Your task to perform on an android device: Open internet settings Image 0: 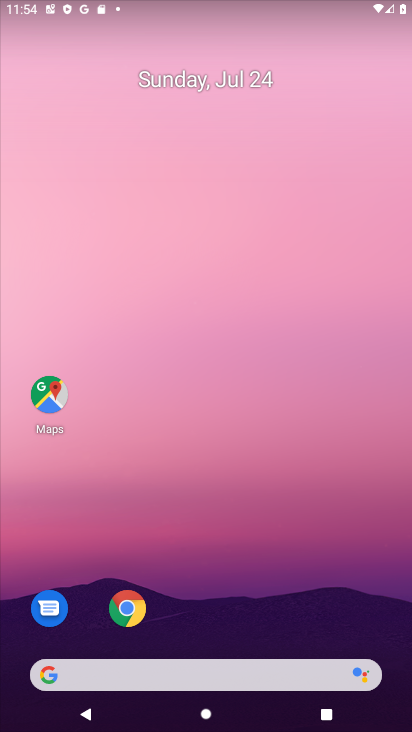
Step 0: drag from (276, 618) to (232, 59)
Your task to perform on an android device: Open internet settings Image 1: 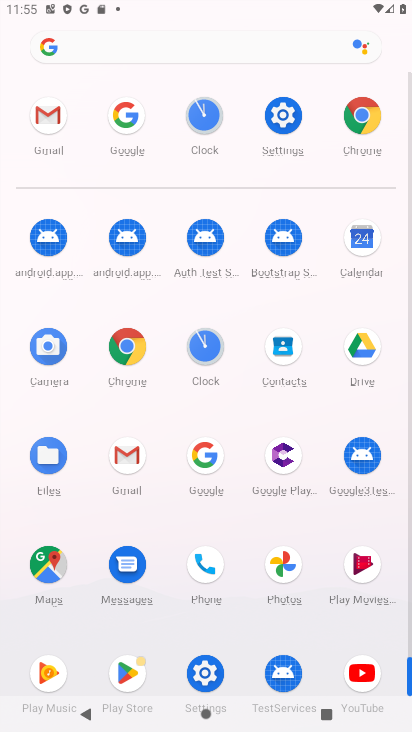
Step 1: click (289, 120)
Your task to perform on an android device: Open internet settings Image 2: 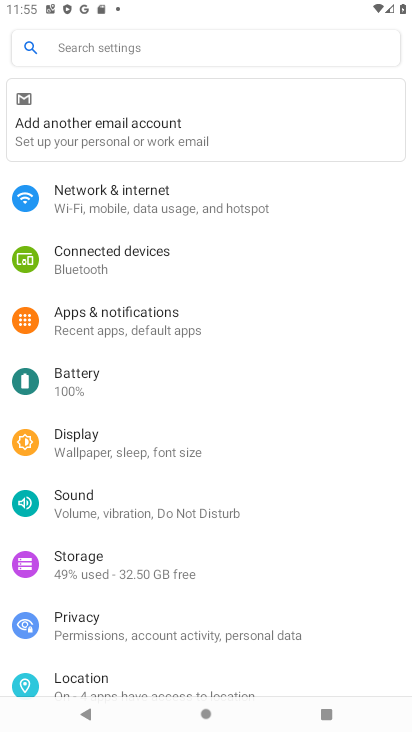
Step 2: click (175, 207)
Your task to perform on an android device: Open internet settings Image 3: 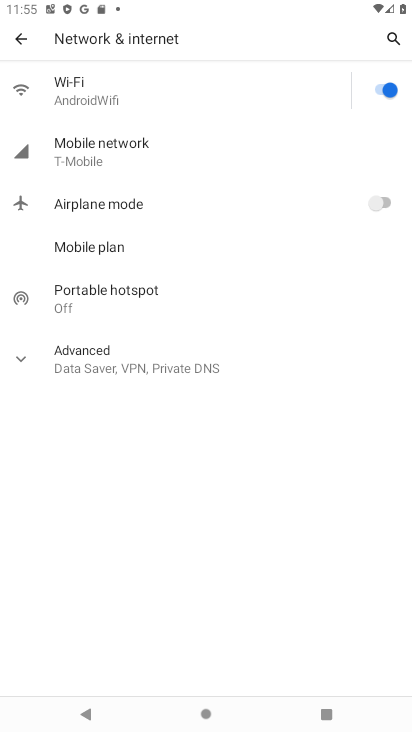
Step 3: task complete